Your task to perform on an android device: Search for hotels in Chicago Image 0: 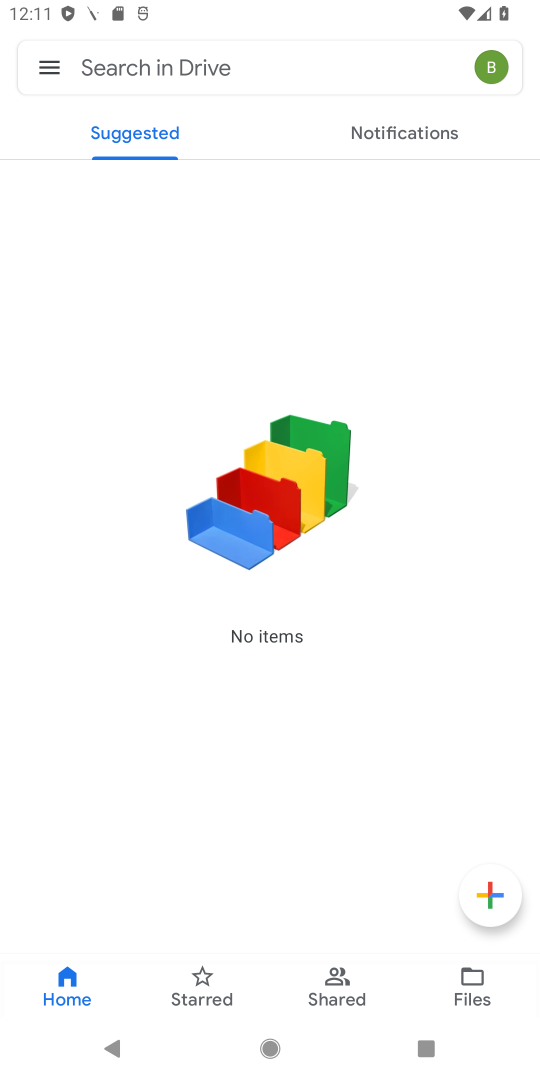
Step 0: press home button
Your task to perform on an android device: Search for hotels in Chicago Image 1: 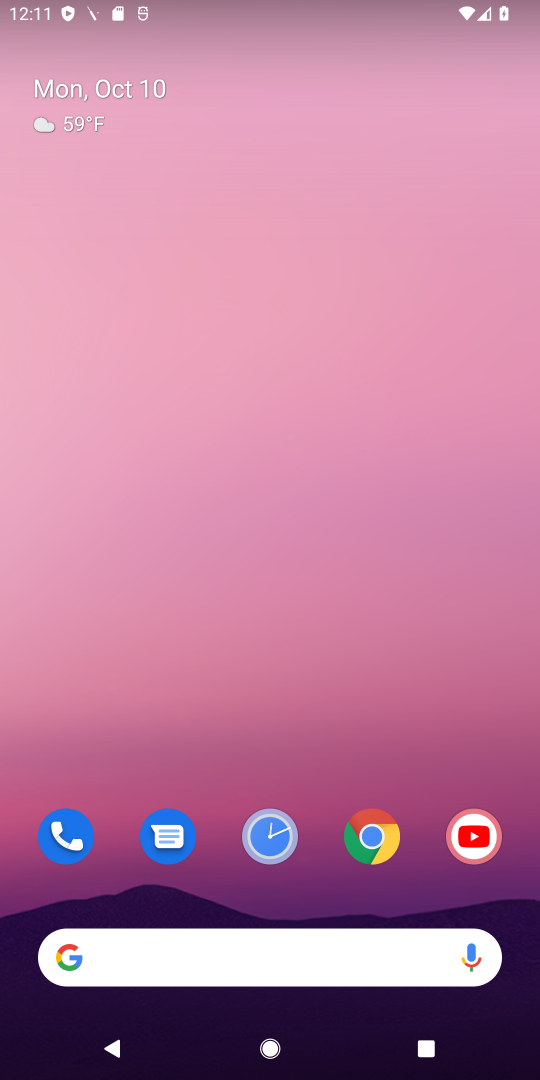
Step 1: click (384, 838)
Your task to perform on an android device: Search for hotels in Chicago Image 2: 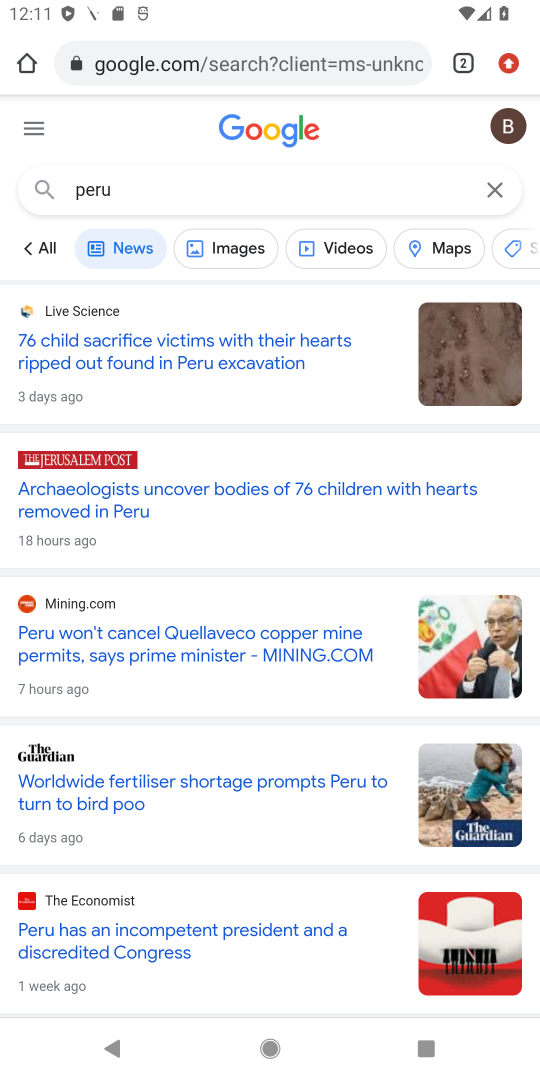
Step 2: click (261, 78)
Your task to perform on an android device: Search for hotels in Chicago Image 3: 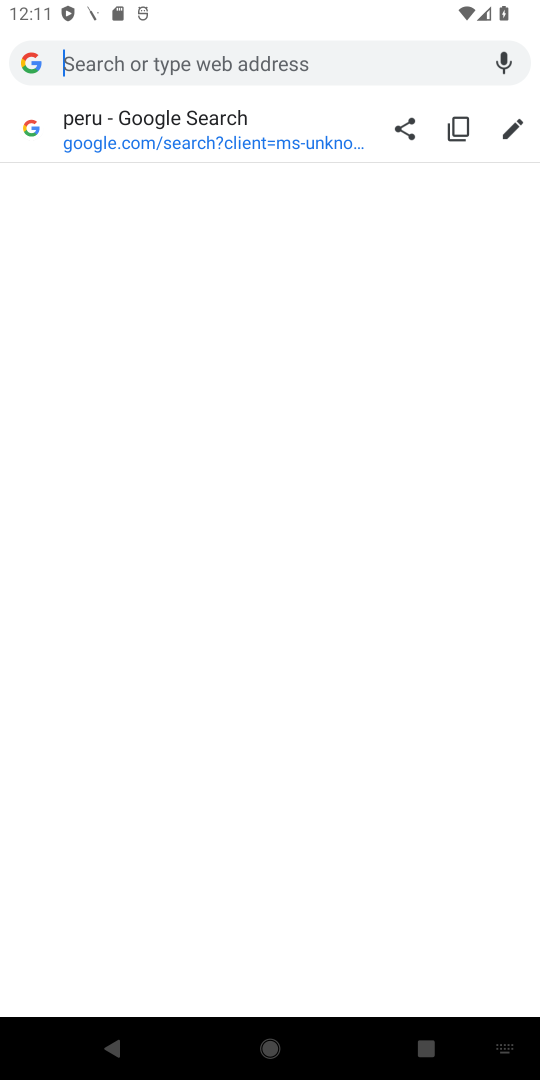
Step 3: type "hotels in chicago"
Your task to perform on an android device: Search for hotels in Chicago Image 4: 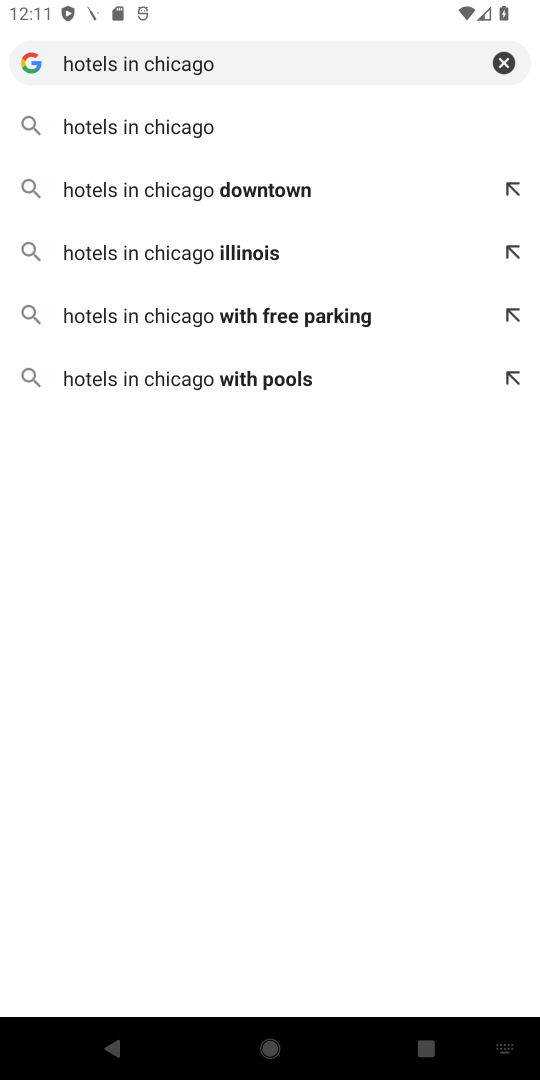
Step 4: click (332, 109)
Your task to perform on an android device: Search for hotels in Chicago Image 5: 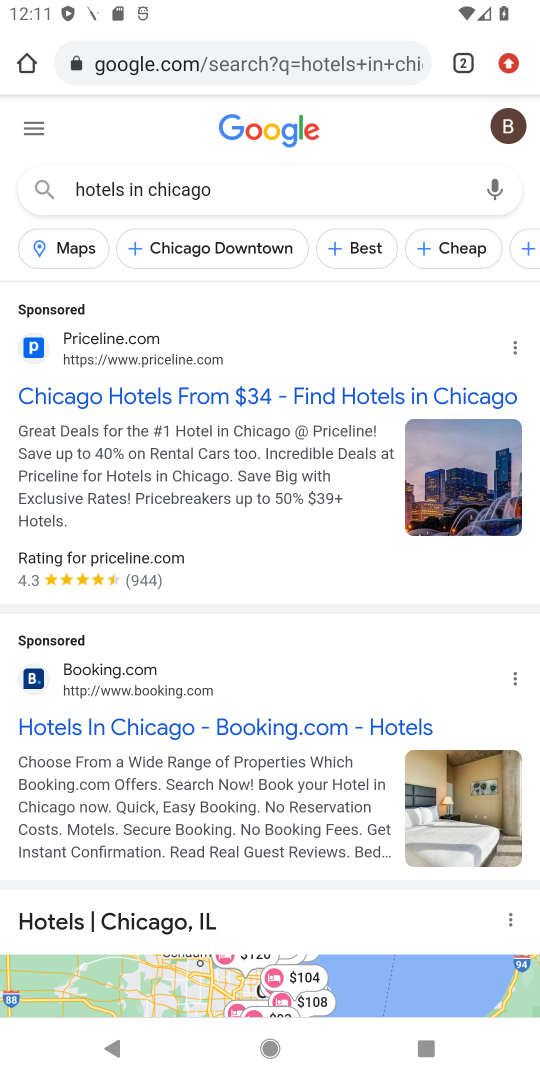
Step 5: drag from (326, 909) to (397, 580)
Your task to perform on an android device: Search for hotels in Chicago Image 6: 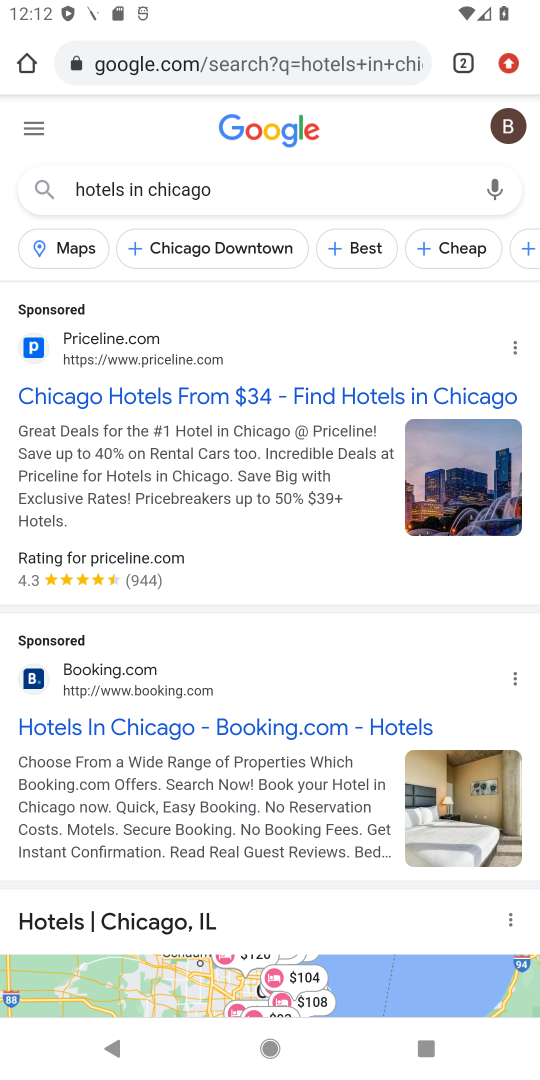
Step 6: drag from (354, 929) to (309, 642)
Your task to perform on an android device: Search for hotels in Chicago Image 7: 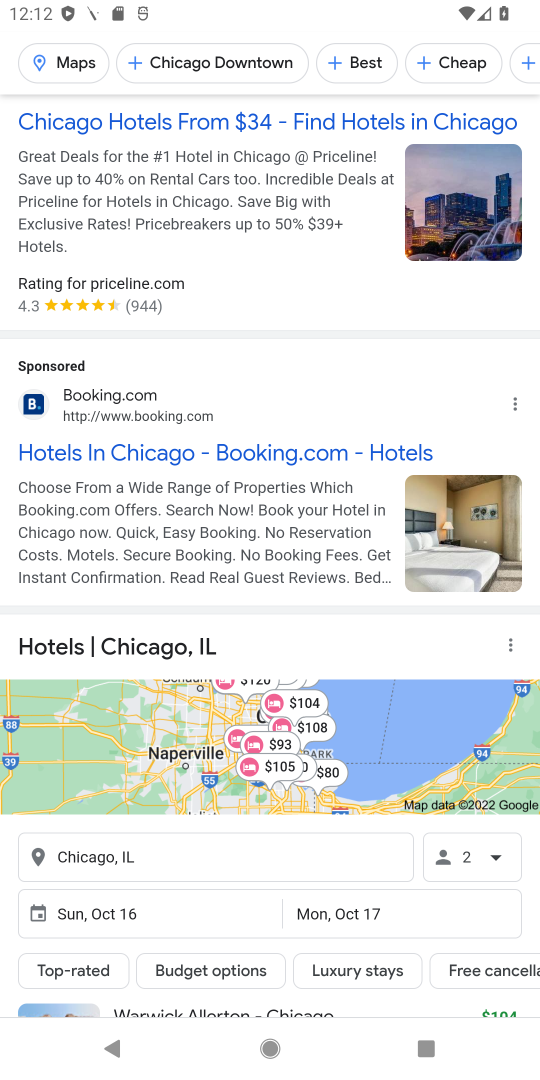
Step 7: click (285, 817)
Your task to perform on an android device: Search for hotels in Chicago Image 8: 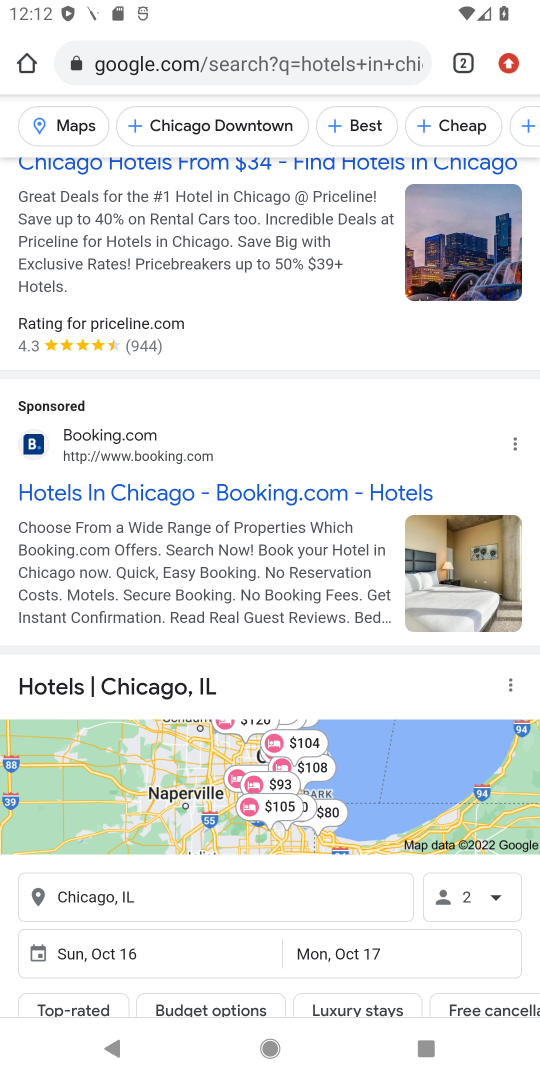
Step 8: task complete